Your task to perform on an android device: clear all cookies in the chrome app Image 0: 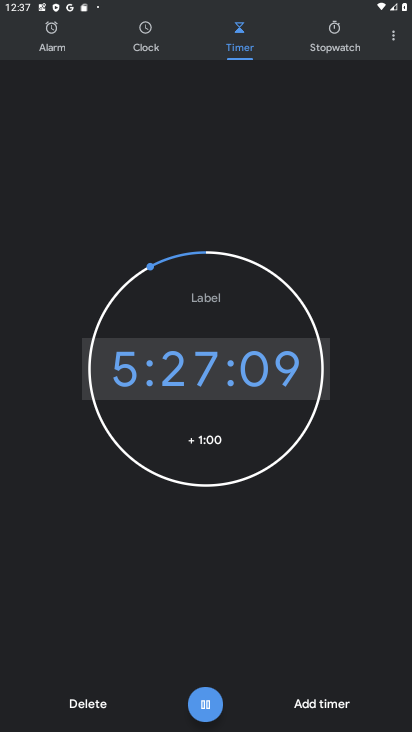
Step 0: press home button
Your task to perform on an android device: clear all cookies in the chrome app Image 1: 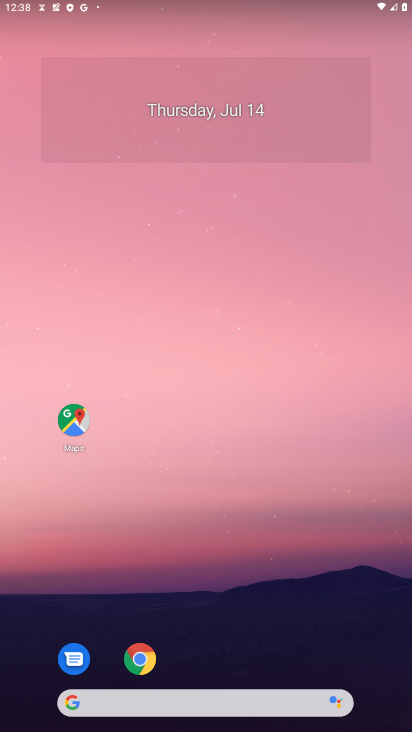
Step 1: click (132, 654)
Your task to perform on an android device: clear all cookies in the chrome app Image 2: 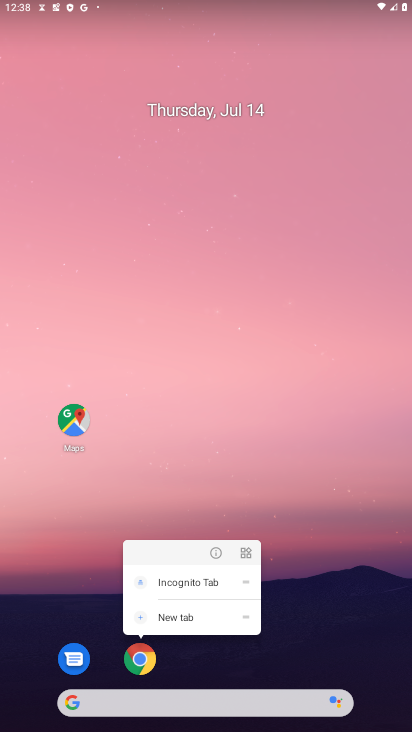
Step 2: click (138, 660)
Your task to perform on an android device: clear all cookies in the chrome app Image 3: 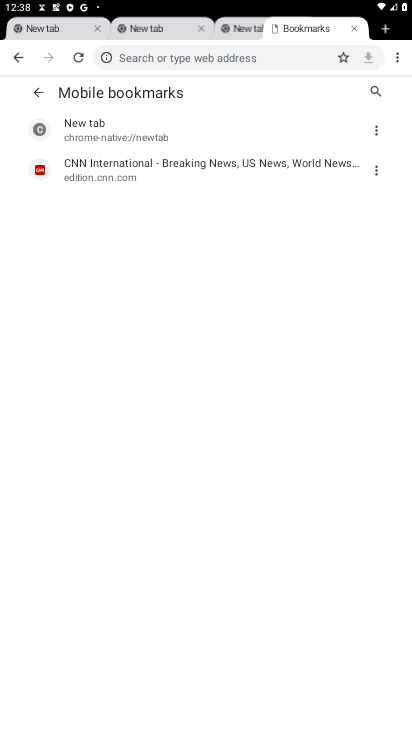
Step 3: click (395, 51)
Your task to perform on an android device: clear all cookies in the chrome app Image 4: 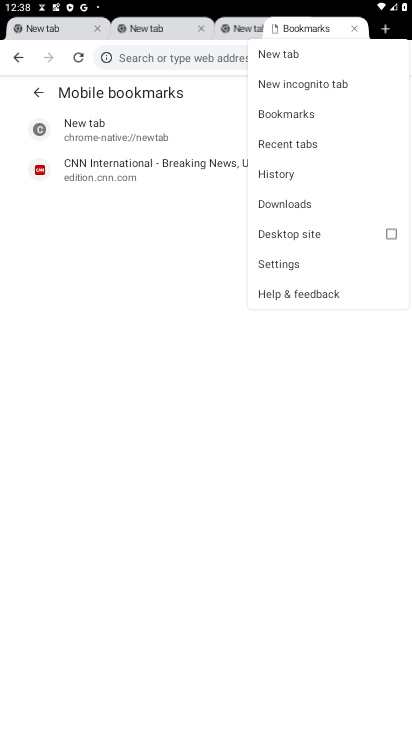
Step 4: click (275, 171)
Your task to perform on an android device: clear all cookies in the chrome app Image 5: 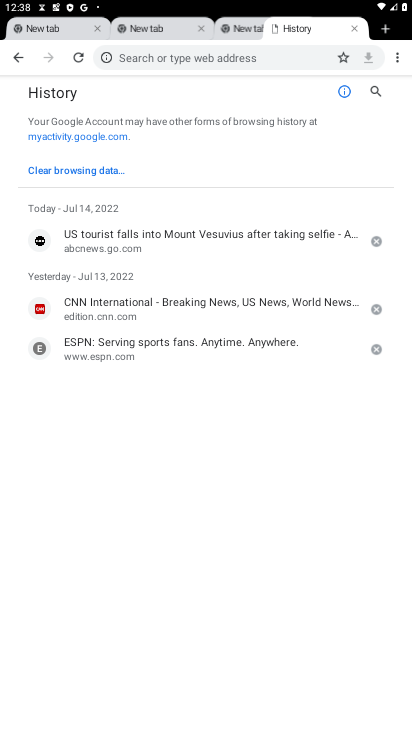
Step 5: click (43, 173)
Your task to perform on an android device: clear all cookies in the chrome app Image 6: 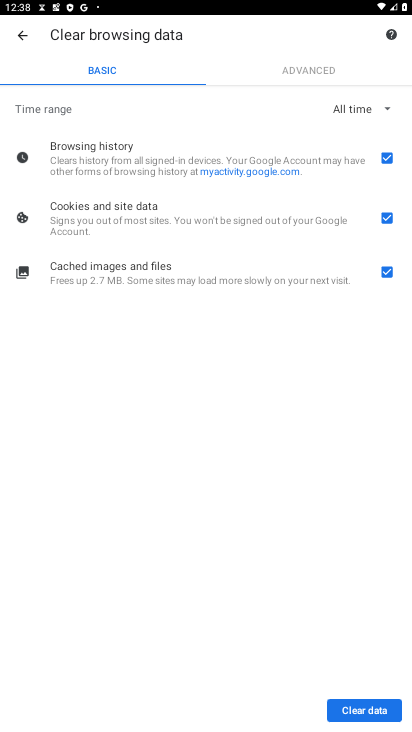
Step 6: click (389, 153)
Your task to perform on an android device: clear all cookies in the chrome app Image 7: 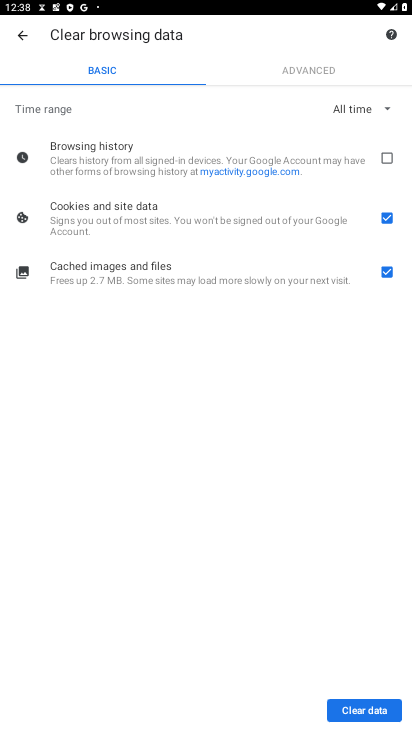
Step 7: click (383, 273)
Your task to perform on an android device: clear all cookies in the chrome app Image 8: 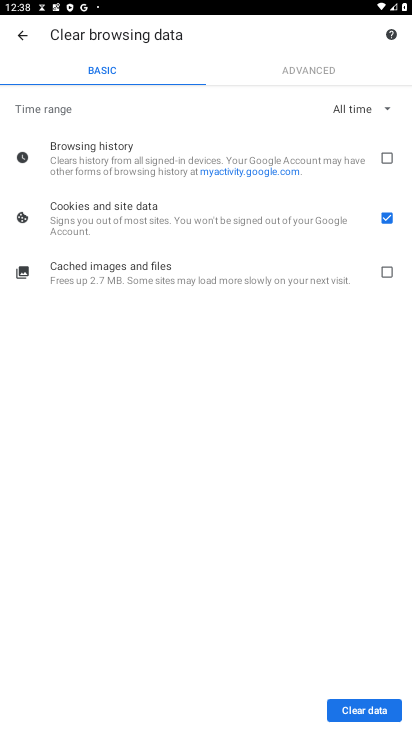
Step 8: click (362, 709)
Your task to perform on an android device: clear all cookies in the chrome app Image 9: 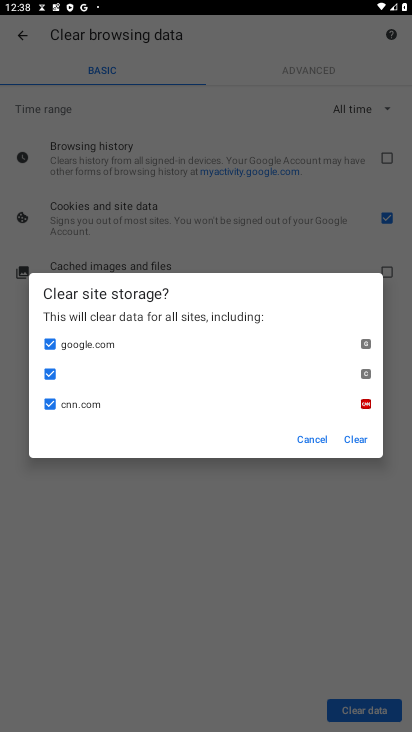
Step 9: click (354, 438)
Your task to perform on an android device: clear all cookies in the chrome app Image 10: 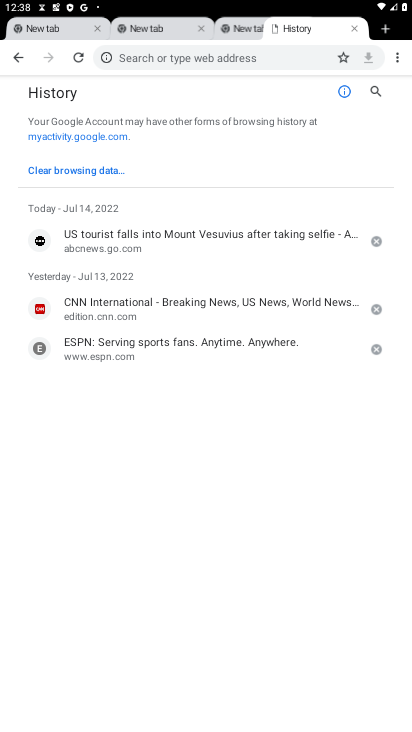
Step 10: task complete